Your task to perform on an android device: Go to accessibility settings Image 0: 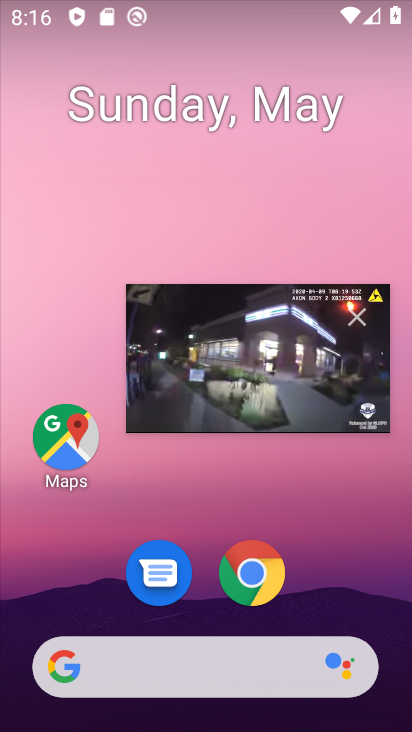
Step 0: click (356, 320)
Your task to perform on an android device: Go to accessibility settings Image 1: 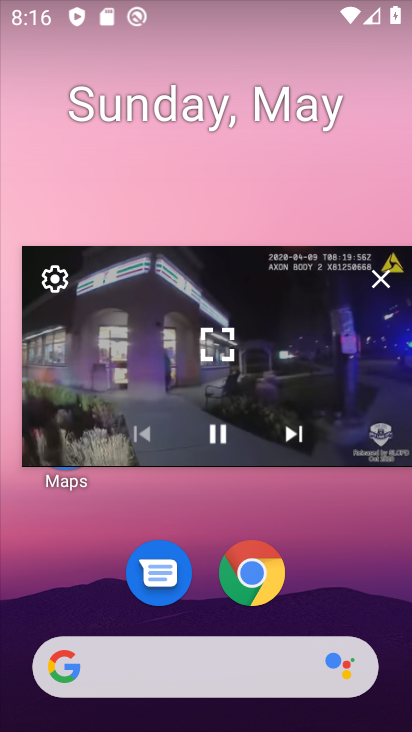
Step 1: click (379, 280)
Your task to perform on an android device: Go to accessibility settings Image 2: 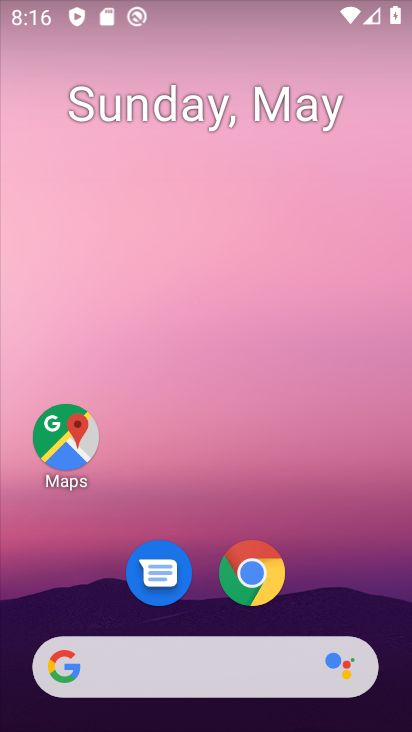
Step 2: drag from (320, 604) to (287, 42)
Your task to perform on an android device: Go to accessibility settings Image 3: 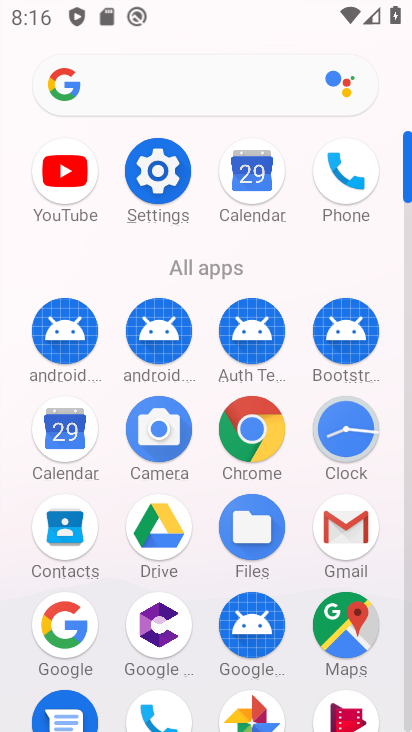
Step 3: click (145, 155)
Your task to perform on an android device: Go to accessibility settings Image 4: 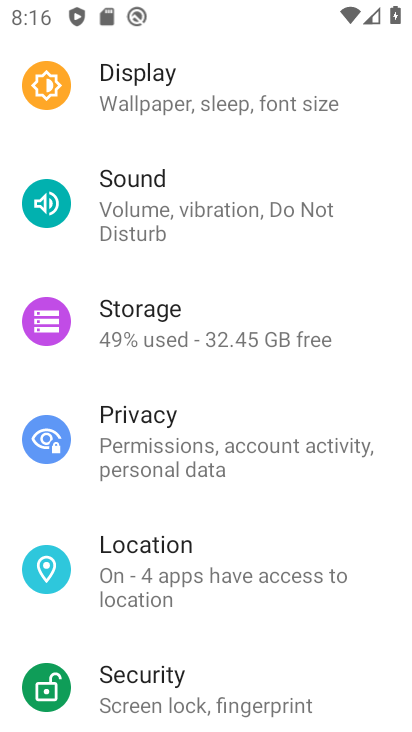
Step 4: drag from (232, 623) to (200, 276)
Your task to perform on an android device: Go to accessibility settings Image 5: 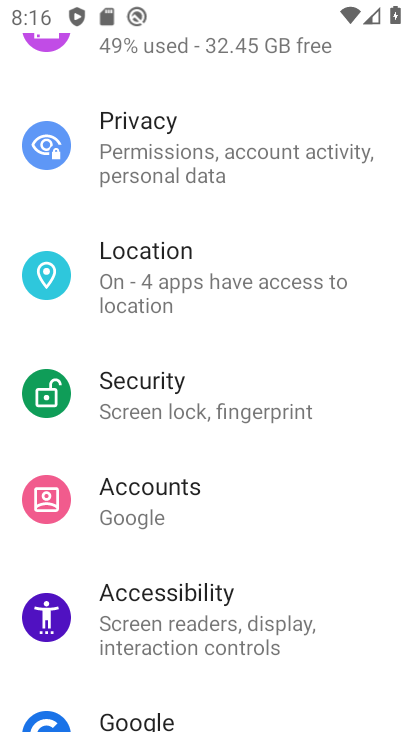
Step 5: drag from (200, 276) to (195, 94)
Your task to perform on an android device: Go to accessibility settings Image 6: 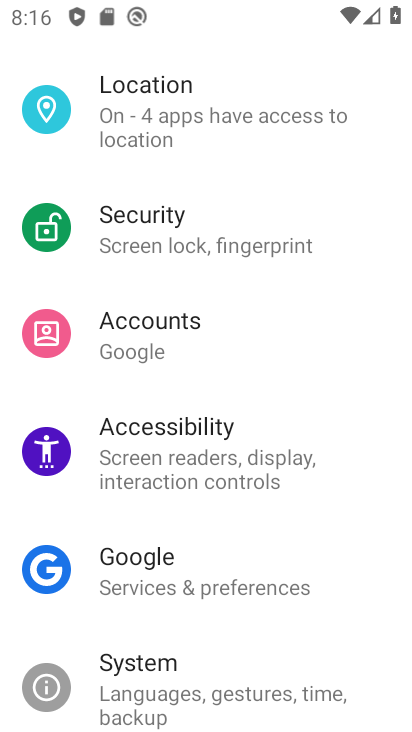
Step 6: click (230, 428)
Your task to perform on an android device: Go to accessibility settings Image 7: 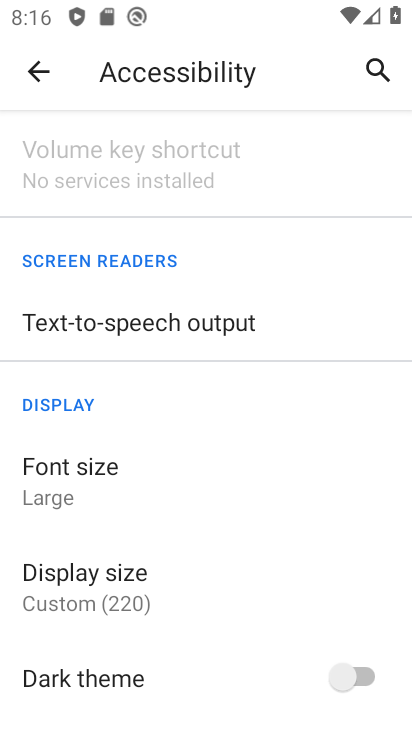
Step 7: task complete